Your task to perform on an android device: Go to notification settings Image 0: 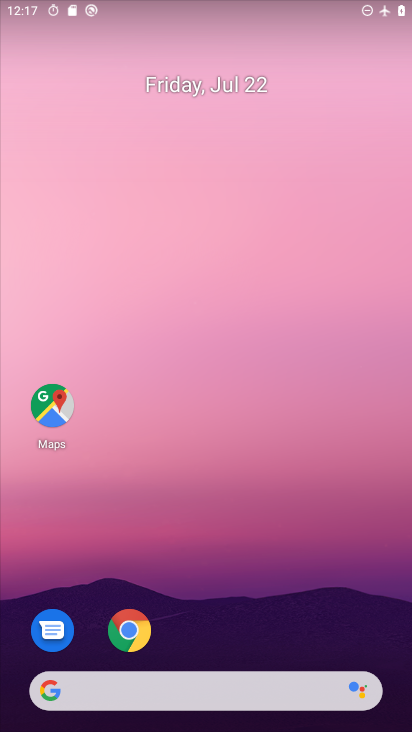
Step 0: drag from (250, 653) to (228, 168)
Your task to perform on an android device: Go to notification settings Image 1: 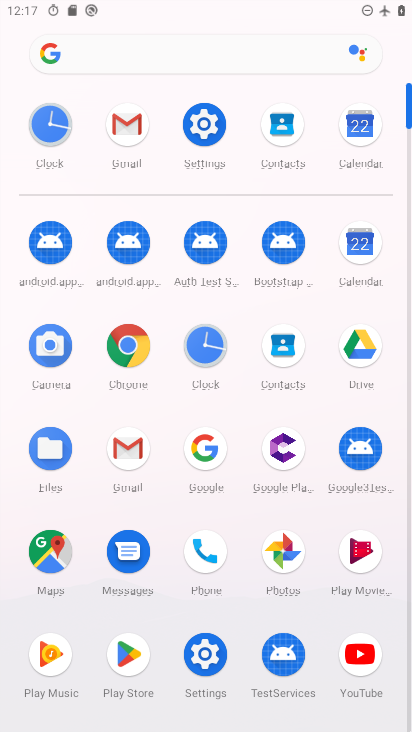
Step 1: click (206, 130)
Your task to perform on an android device: Go to notification settings Image 2: 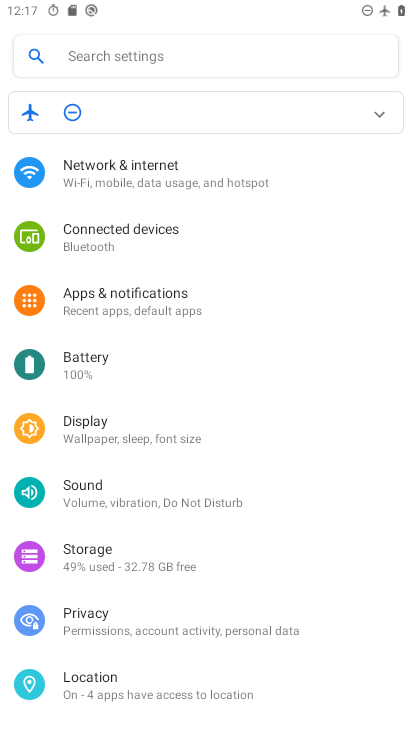
Step 2: click (153, 304)
Your task to perform on an android device: Go to notification settings Image 3: 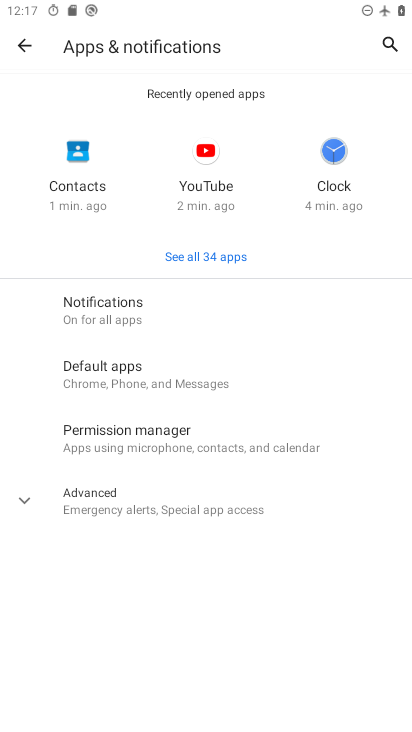
Step 3: click (92, 305)
Your task to perform on an android device: Go to notification settings Image 4: 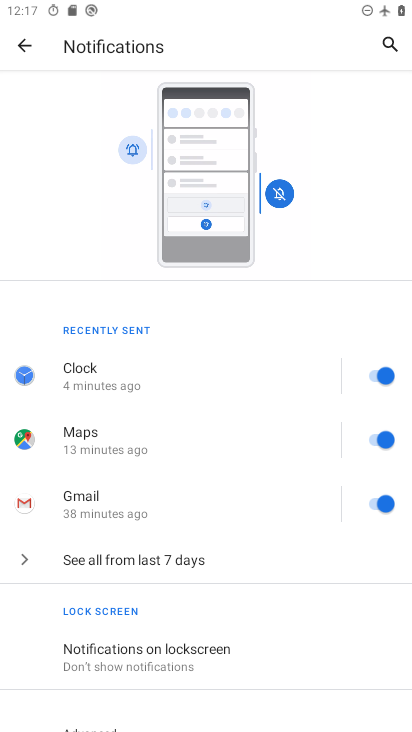
Step 4: task complete